Your task to perform on an android device: toggle airplane mode Image 0: 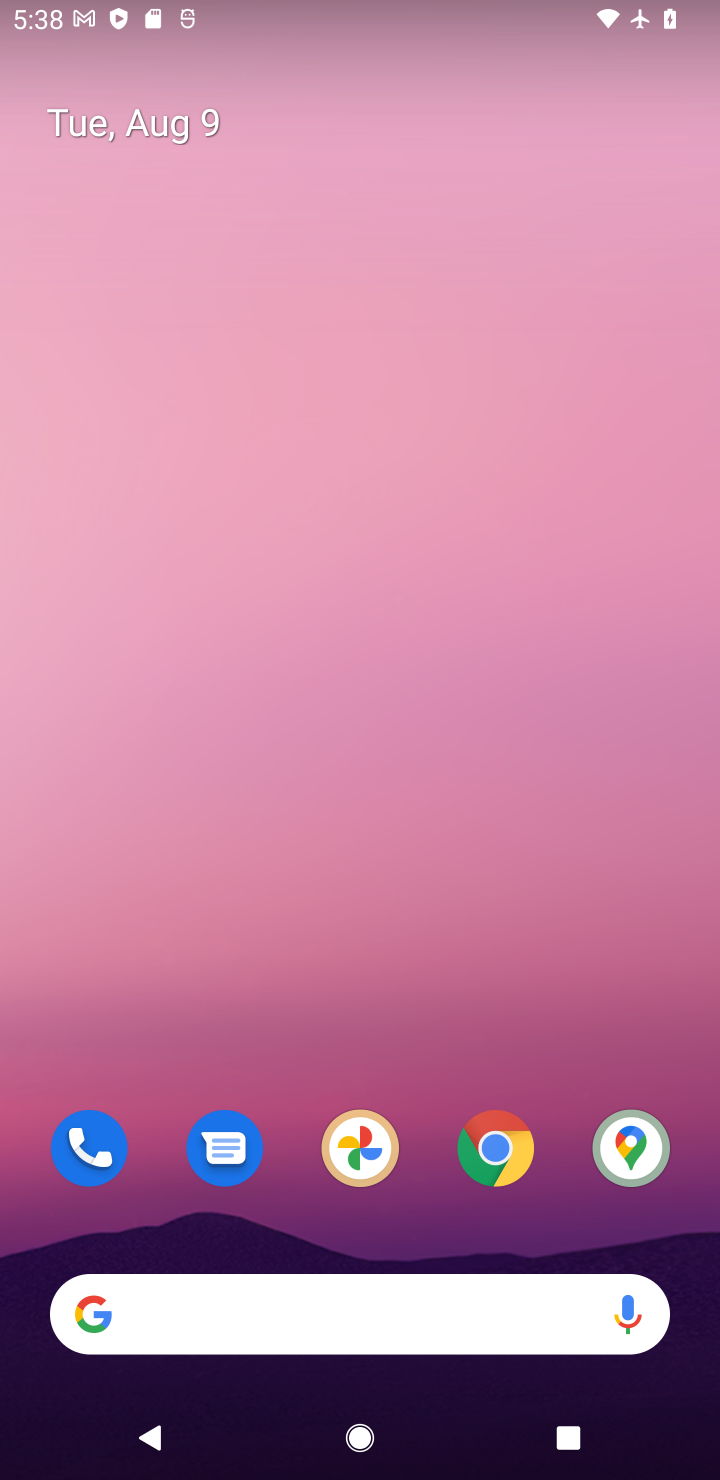
Step 0: drag from (365, 1265) to (437, 8)
Your task to perform on an android device: toggle airplane mode Image 1: 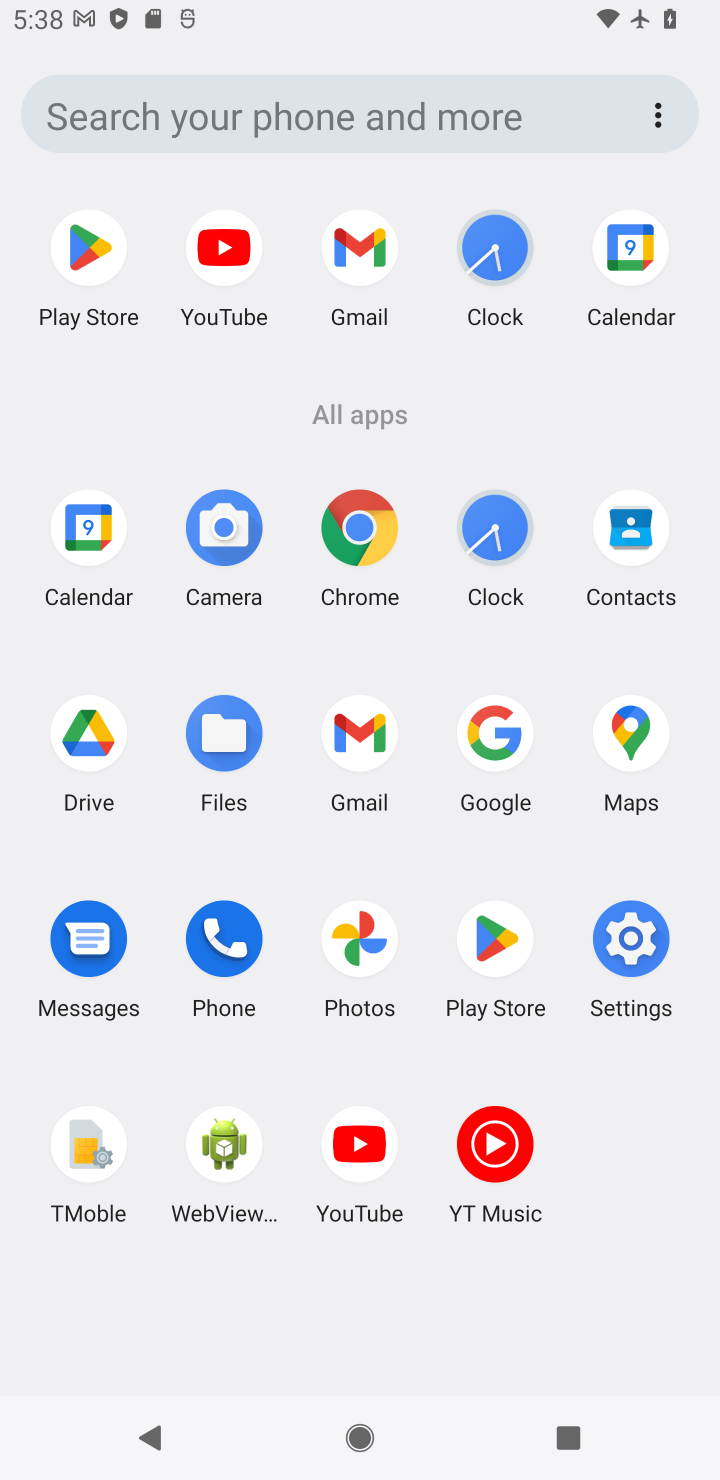
Step 1: click (647, 962)
Your task to perform on an android device: toggle airplane mode Image 2: 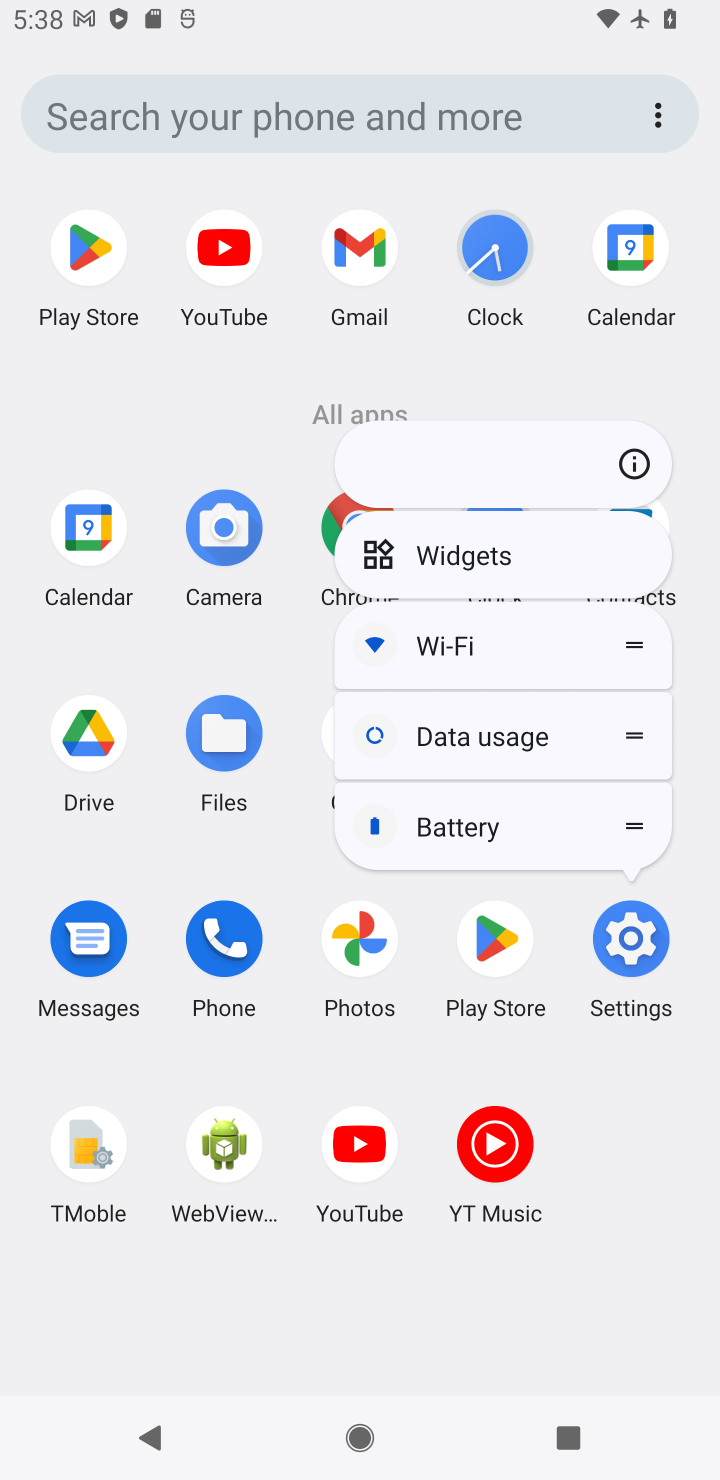
Step 2: click (639, 974)
Your task to perform on an android device: toggle airplane mode Image 3: 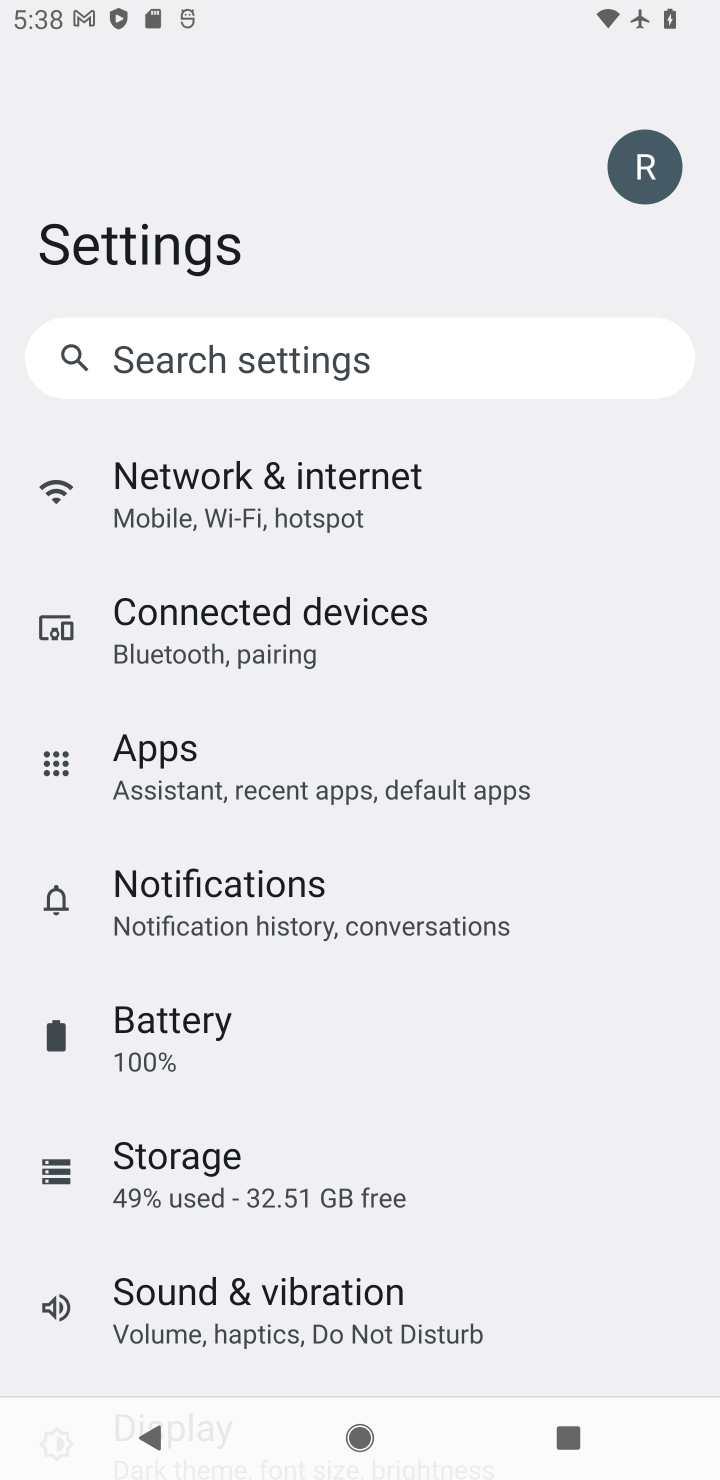
Step 3: click (303, 504)
Your task to perform on an android device: toggle airplane mode Image 4: 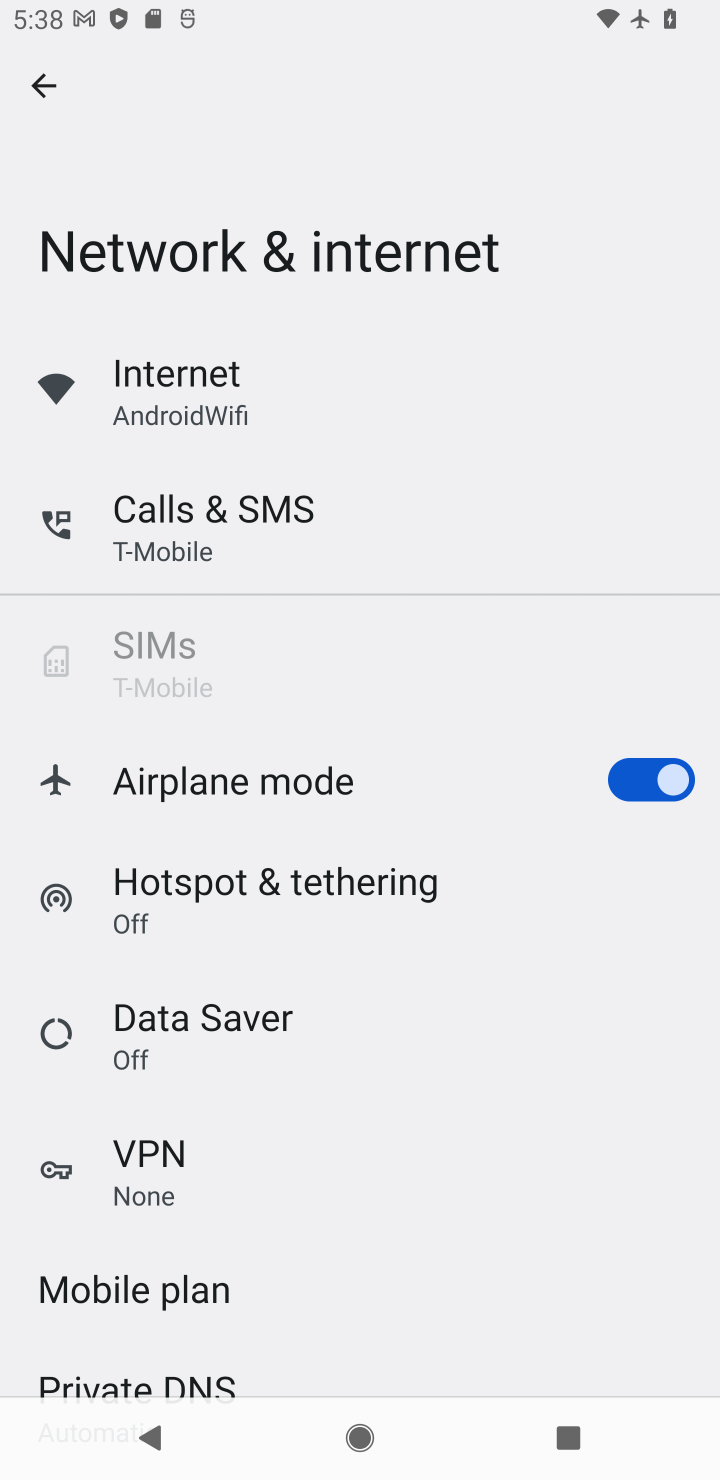
Step 4: click (594, 778)
Your task to perform on an android device: toggle airplane mode Image 5: 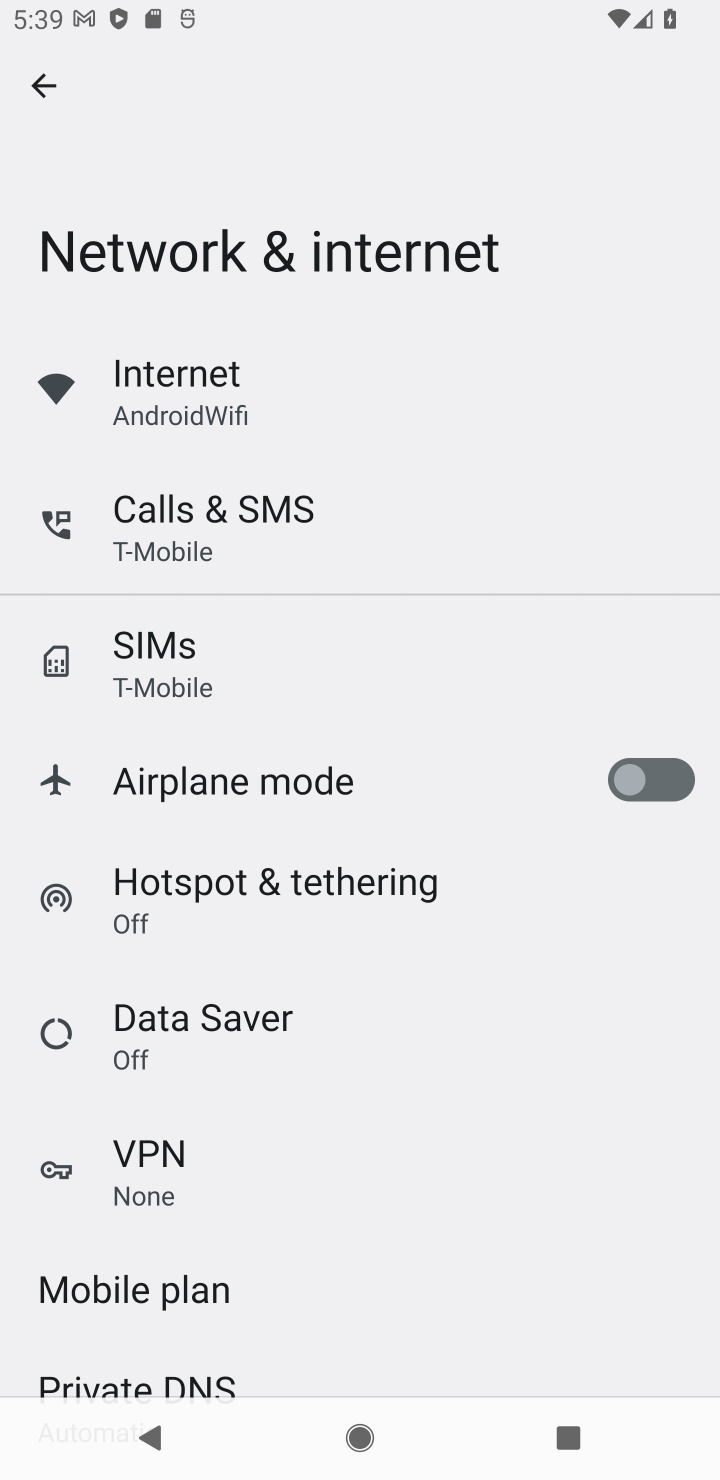
Step 5: task complete